Your task to perform on an android device: Search for vegetarian restaurants on Maps Image 0: 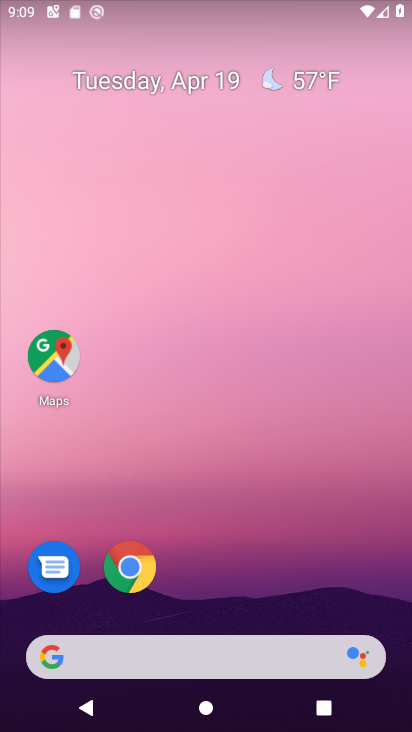
Step 0: click (59, 358)
Your task to perform on an android device: Search for vegetarian restaurants on Maps Image 1: 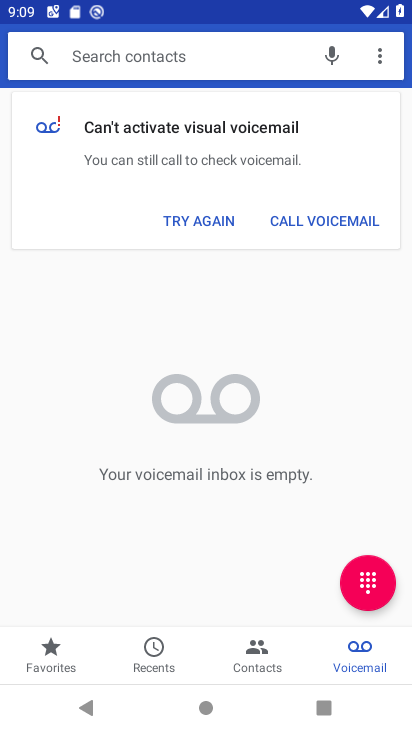
Step 1: press home button
Your task to perform on an android device: Search for vegetarian restaurants on Maps Image 2: 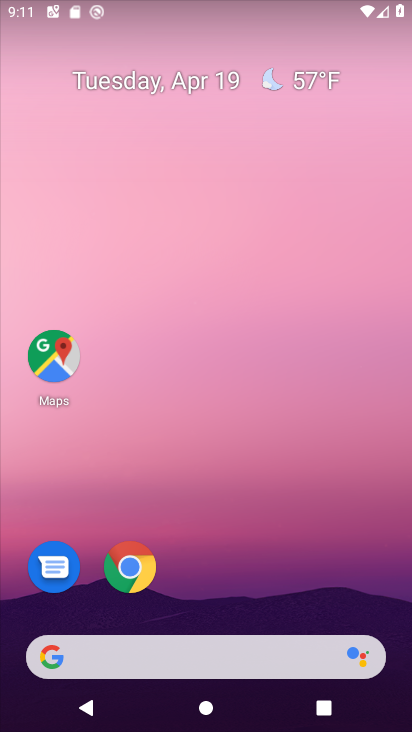
Step 2: drag from (281, 715) to (279, 516)
Your task to perform on an android device: Search for vegetarian restaurants on Maps Image 3: 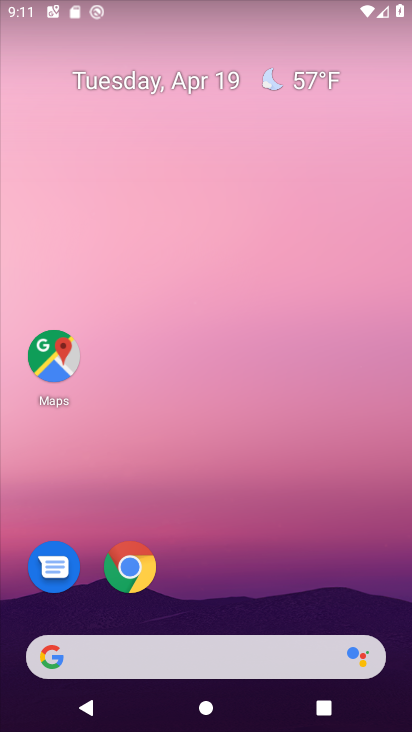
Step 3: click (38, 358)
Your task to perform on an android device: Search for vegetarian restaurants on Maps Image 4: 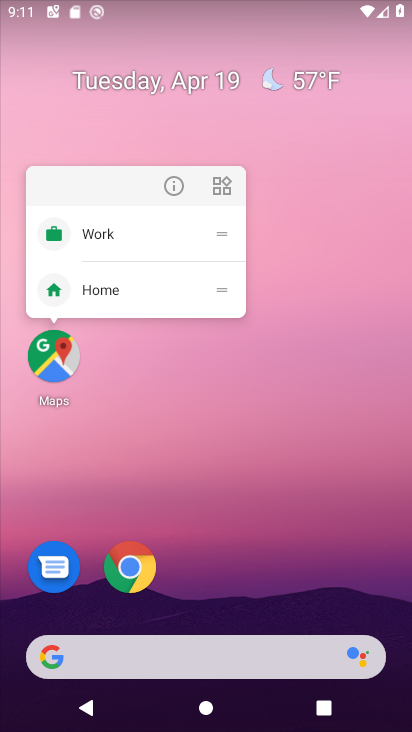
Step 4: click (71, 360)
Your task to perform on an android device: Search for vegetarian restaurants on Maps Image 5: 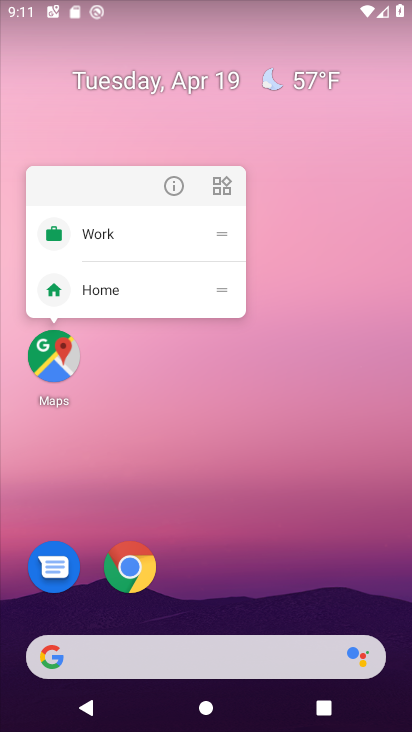
Step 5: click (76, 360)
Your task to perform on an android device: Search for vegetarian restaurants on Maps Image 6: 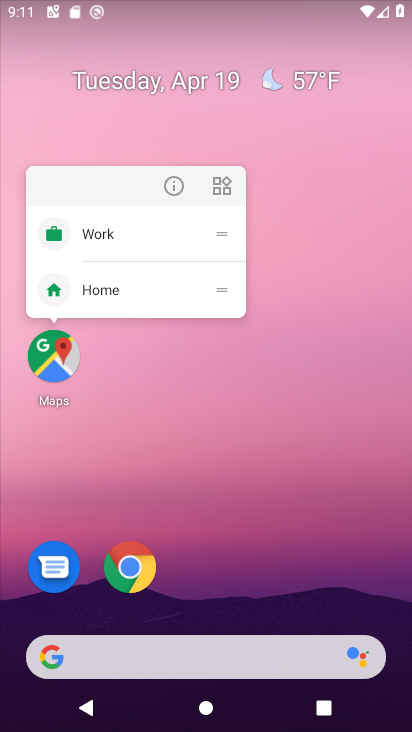
Step 6: click (60, 365)
Your task to perform on an android device: Search for vegetarian restaurants on Maps Image 7: 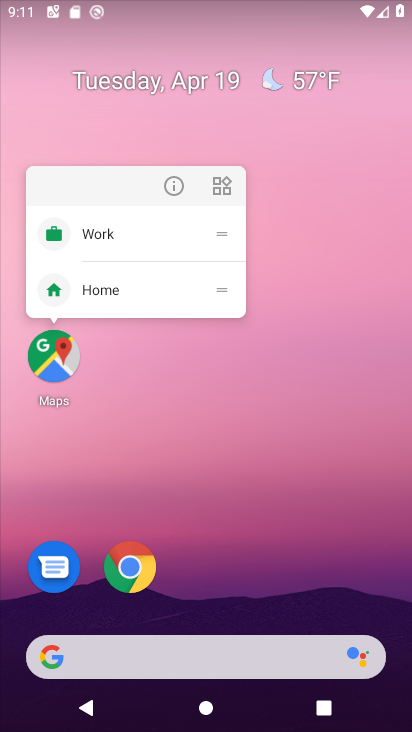
Step 7: click (60, 369)
Your task to perform on an android device: Search for vegetarian restaurants on Maps Image 8: 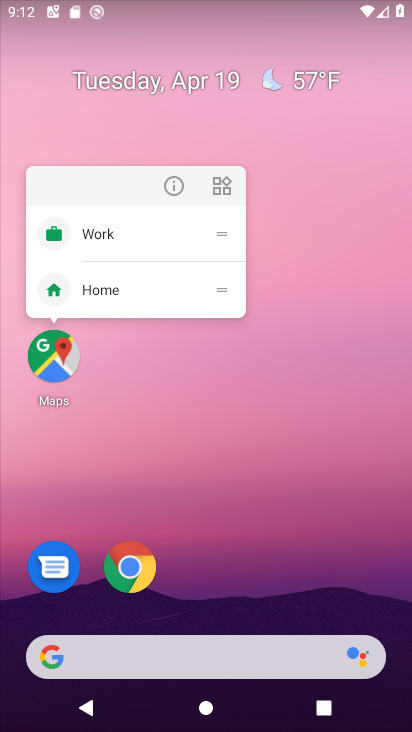
Step 8: click (52, 364)
Your task to perform on an android device: Search for vegetarian restaurants on Maps Image 9: 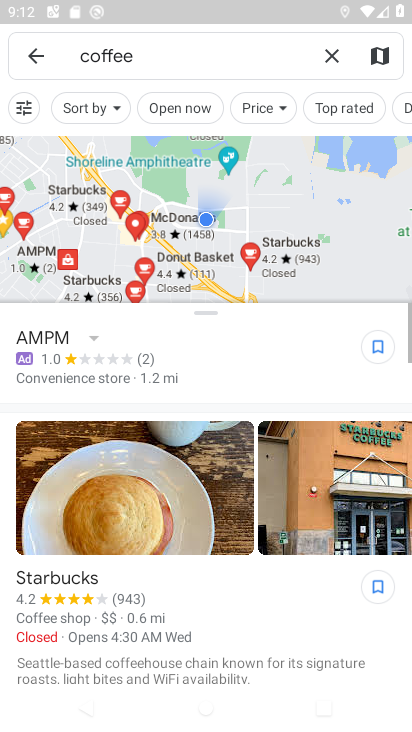
Step 9: click (330, 57)
Your task to perform on an android device: Search for vegetarian restaurants on Maps Image 10: 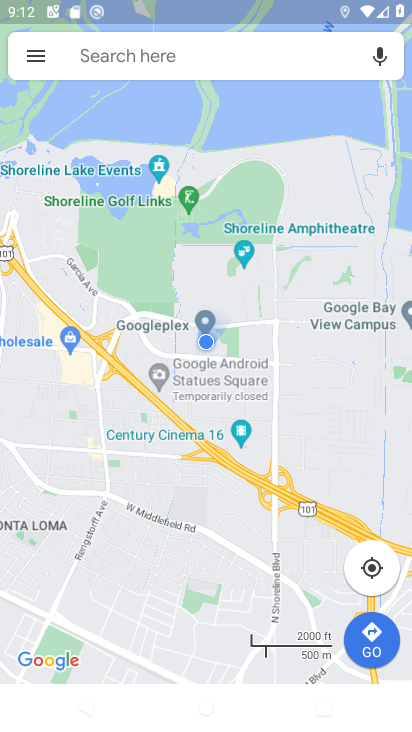
Step 10: click (256, 53)
Your task to perform on an android device: Search for vegetarian restaurants on Maps Image 11: 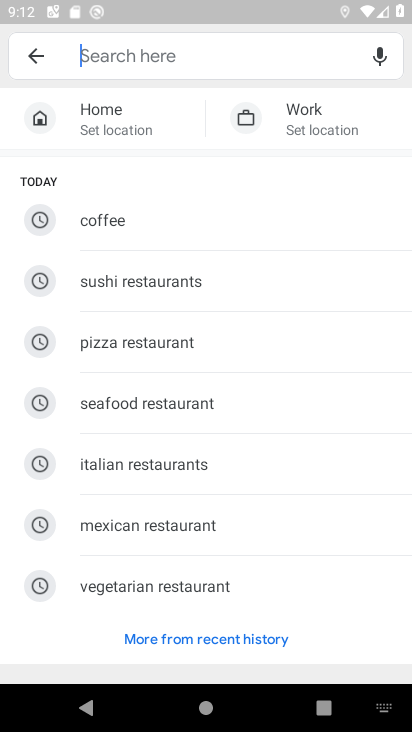
Step 11: click (190, 584)
Your task to perform on an android device: Search for vegetarian restaurants on Maps Image 12: 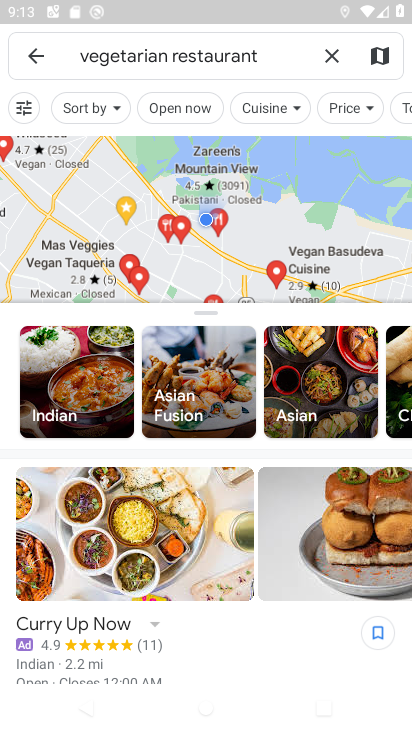
Step 12: task complete